Your task to perform on an android device: Toggle the flashlight Image 0: 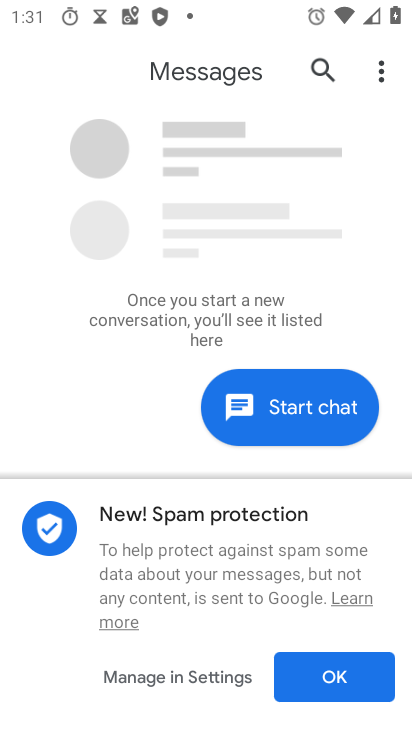
Step 0: press home button
Your task to perform on an android device: Toggle the flashlight Image 1: 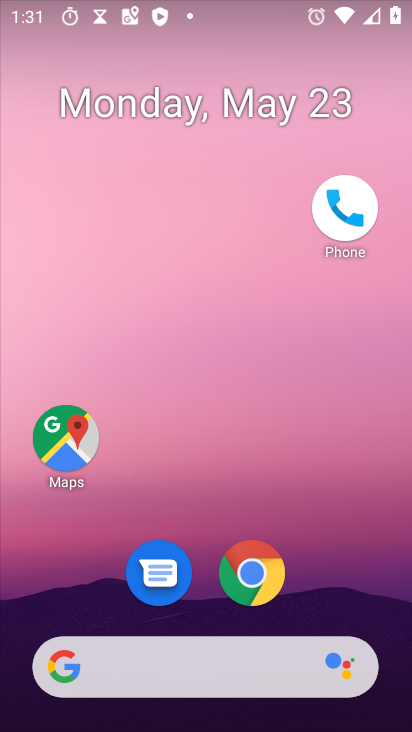
Step 1: task complete